Your task to perform on an android device: Search for seafood restaurants on Google Maps Image 0: 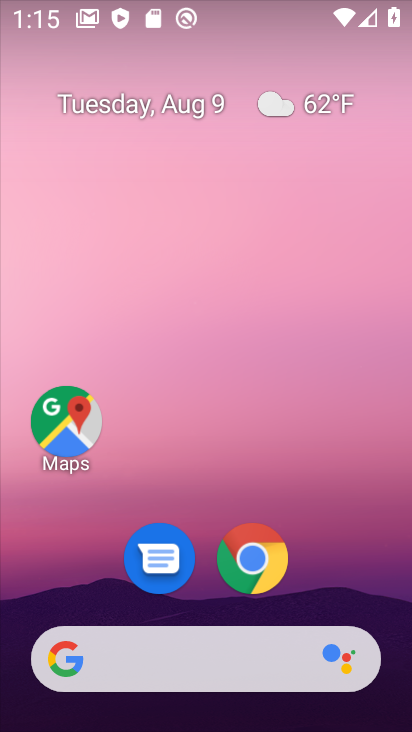
Step 0: drag from (358, 551) to (355, 446)
Your task to perform on an android device: Search for seafood restaurants on Google Maps Image 1: 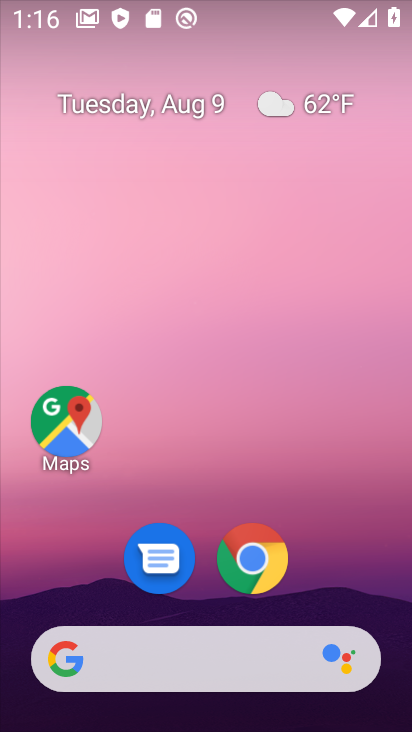
Step 1: click (66, 413)
Your task to perform on an android device: Search for seafood restaurants on Google Maps Image 2: 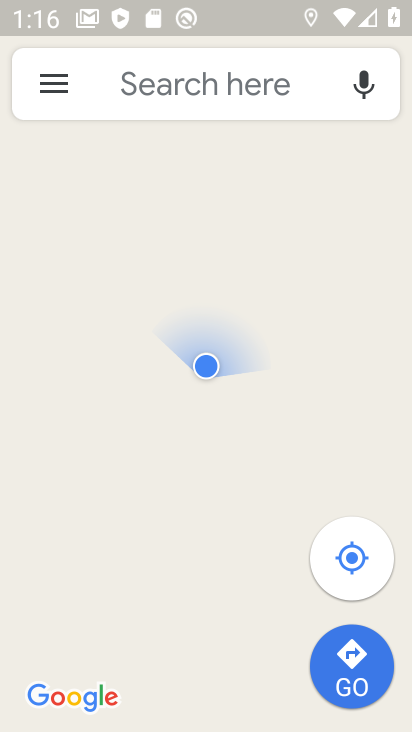
Step 2: click (233, 87)
Your task to perform on an android device: Search for seafood restaurants on Google Maps Image 3: 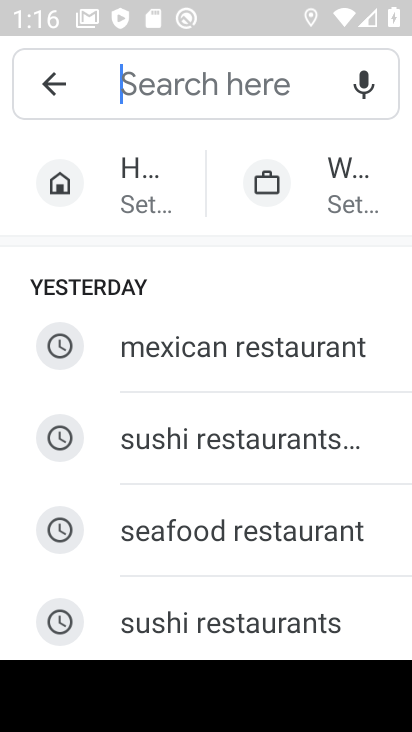
Step 3: click (292, 524)
Your task to perform on an android device: Search for seafood restaurants on Google Maps Image 4: 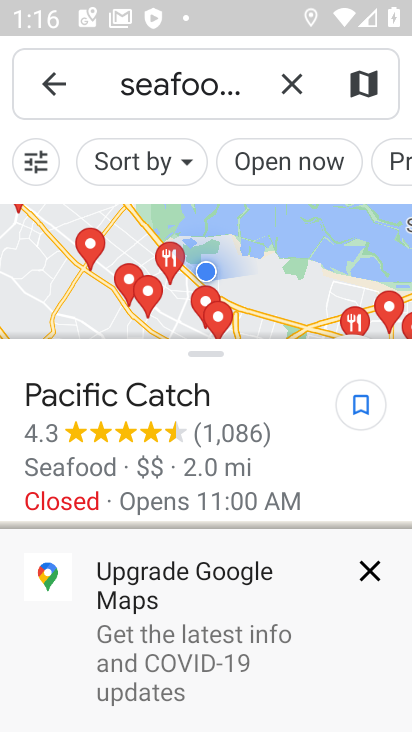
Step 4: task complete